Your task to perform on an android device: turn off notifications settings in the gmail app Image 0: 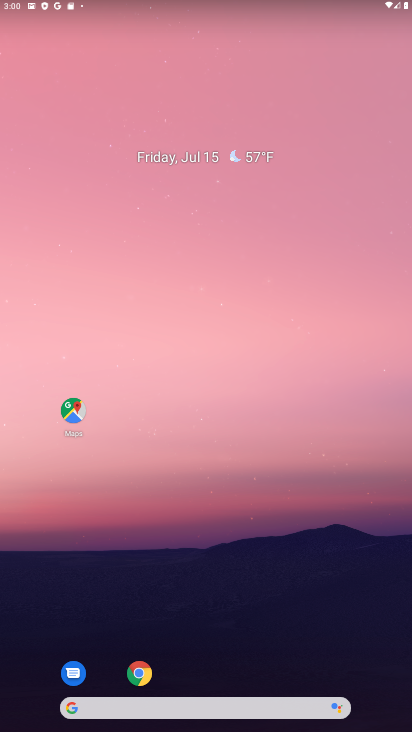
Step 0: drag from (190, 634) to (206, 3)
Your task to perform on an android device: turn off notifications settings in the gmail app Image 1: 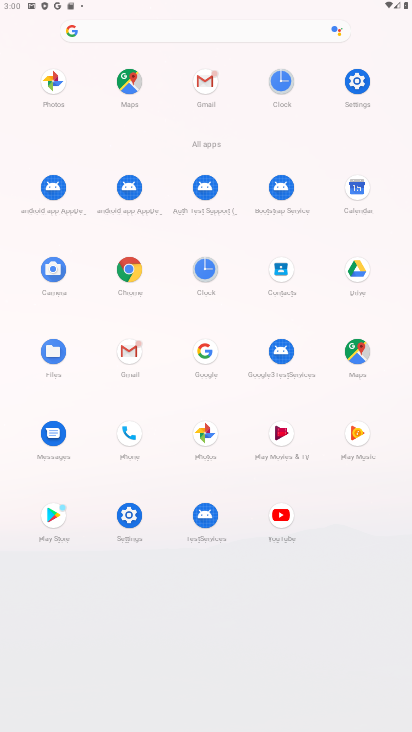
Step 1: click (204, 86)
Your task to perform on an android device: turn off notifications settings in the gmail app Image 2: 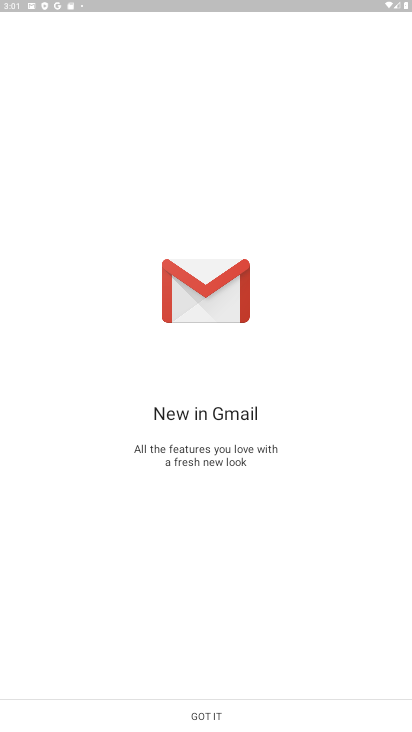
Step 2: click (210, 714)
Your task to perform on an android device: turn off notifications settings in the gmail app Image 3: 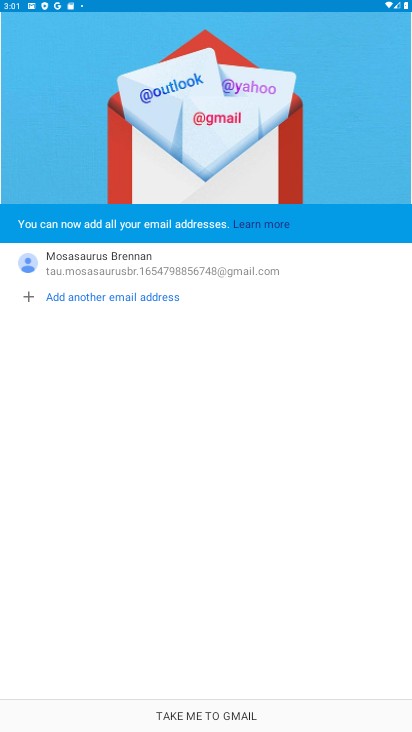
Step 3: click (210, 714)
Your task to perform on an android device: turn off notifications settings in the gmail app Image 4: 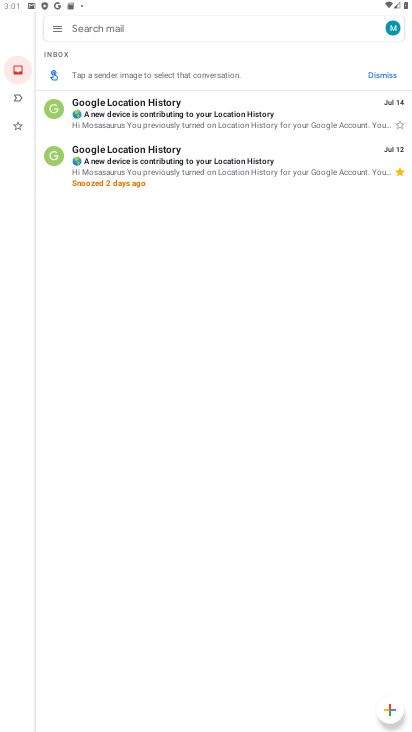
Step 4: click (60, 27)
Your task to perform on an android device: turn off notifications settings in the gmail app Image 5: 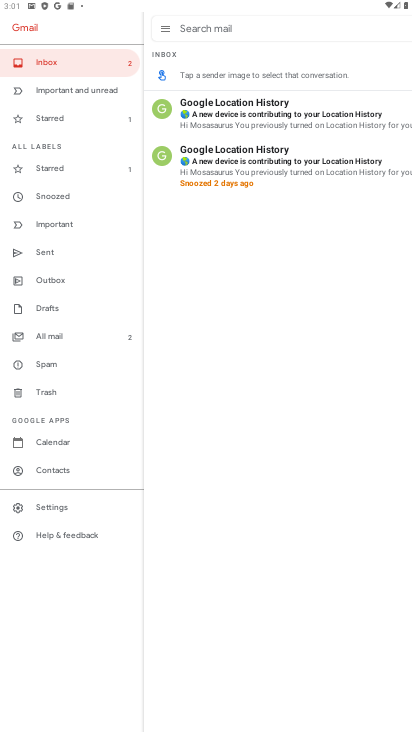
Step 5: click (58, 503)
Your task to perform on an android device: turn off notifications settings in the gmail app Image 6: 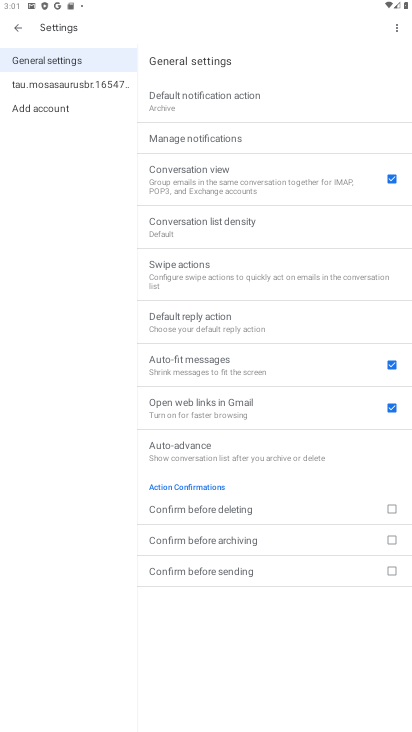
Step 6: click (100, 84)
Your task to perform on an android device: turn off notifications settings in the gmail app Image 7: 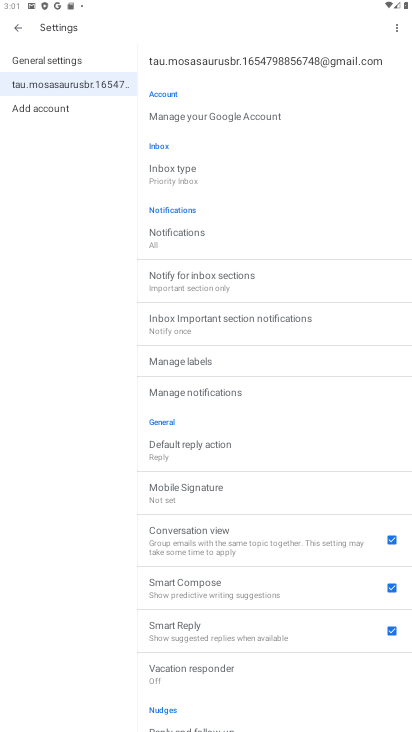
Step 7: click (172, 250)
Your task to perform on an android device: turn off notifications settings in the gmail app Image 8: 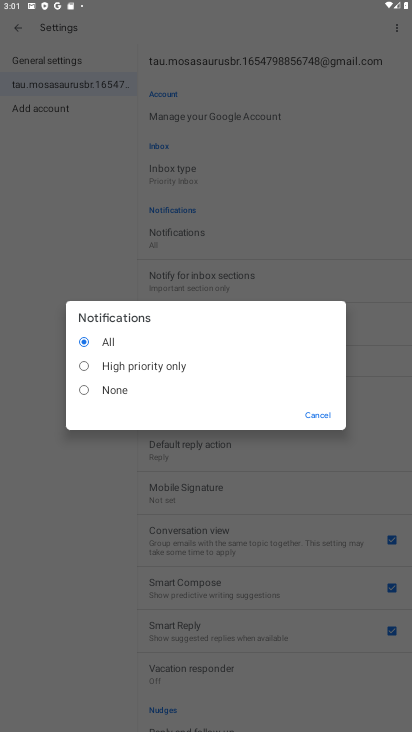
Step 8: click (76, 390)
Your task to perform on an android device: turn off notifications settings in the gmail app Image 9: 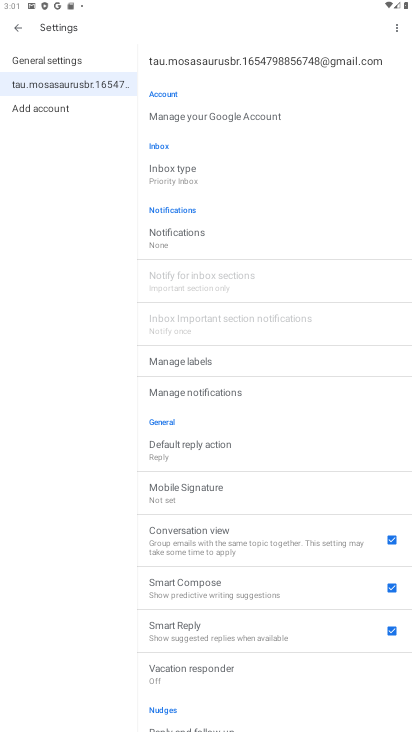
Step 9: task complete